Your task to perform on an android device: Go to notification settings Image 0: 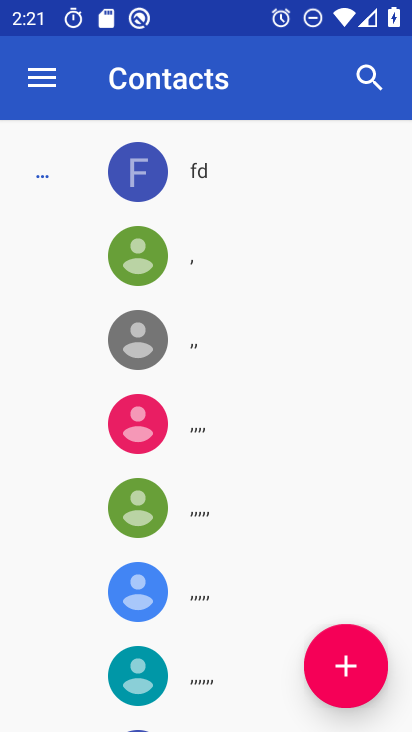
Step 0: press home button
Your task to perform on an android device: Go to notification settings Image 1: 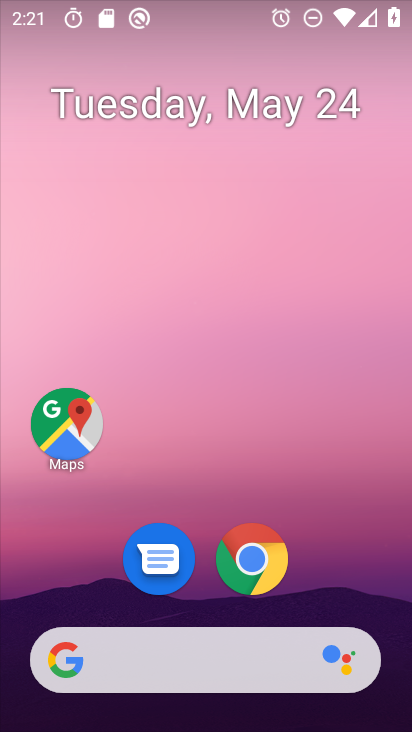
Step 1: drag from (391, 720) to (377, 259)
Your task to perform on an android device: Go to notification settings Image 2: 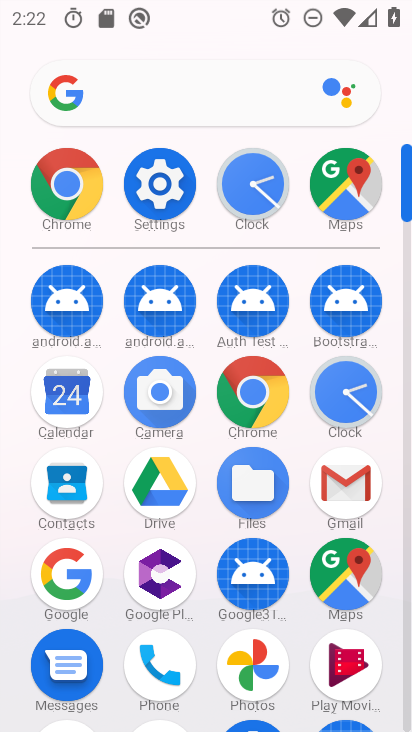
Step 2: click (175, 184)
Your task to perform on an android device: Go to notification settings Image 3: 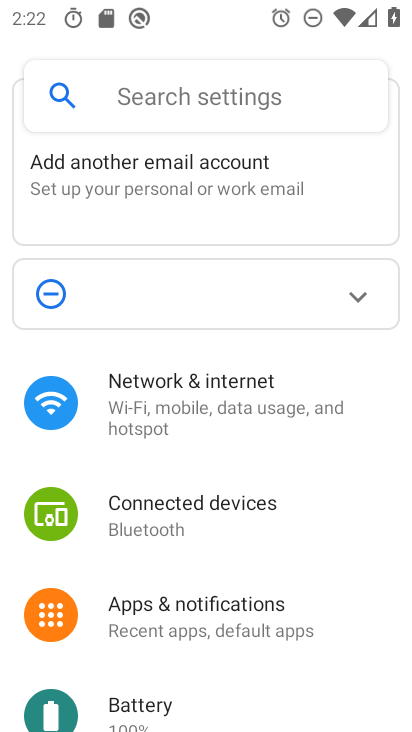
Step 3: click (193, 404)
Your task to perform on an android device: Go to notification settings Image 4: 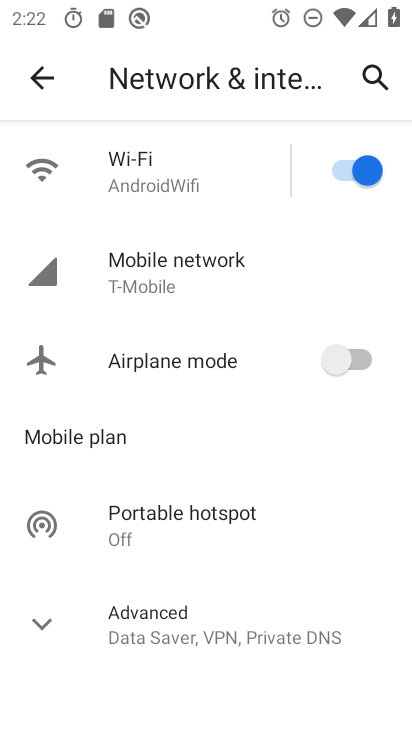
Step 4: drag from (254, 666) to (244, 301)
Your task to perform on an android device: Go to notification settings Image 5: 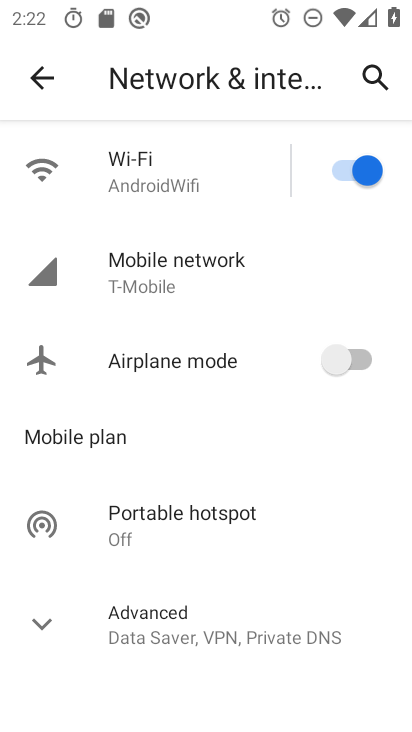
Step 5: click (39, 75)
Your task to perform on an android device: Go to notification settings Image 6: 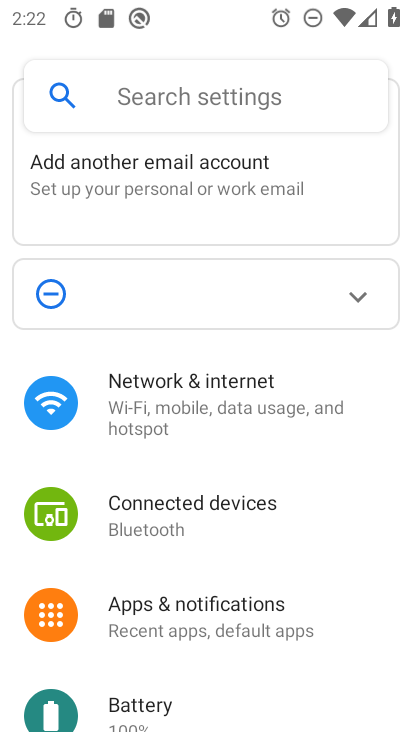
Step 6: click (170, 608)
Your task to perform on an android device: Go to notification settings Image 7: 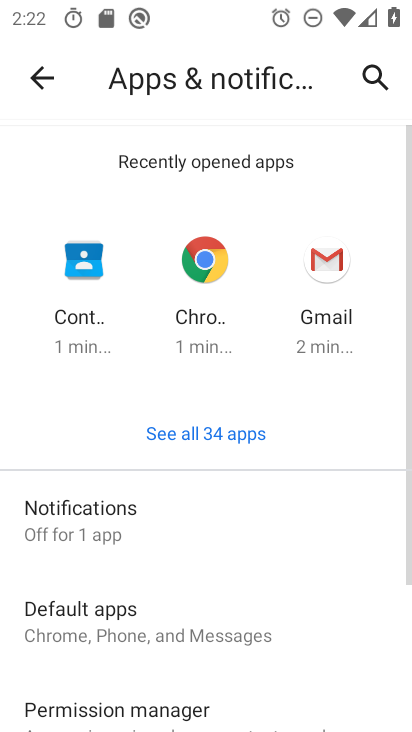
Step 7: click (63, 518)
Your task to perform on an android device: Go to notification settings Image 8: 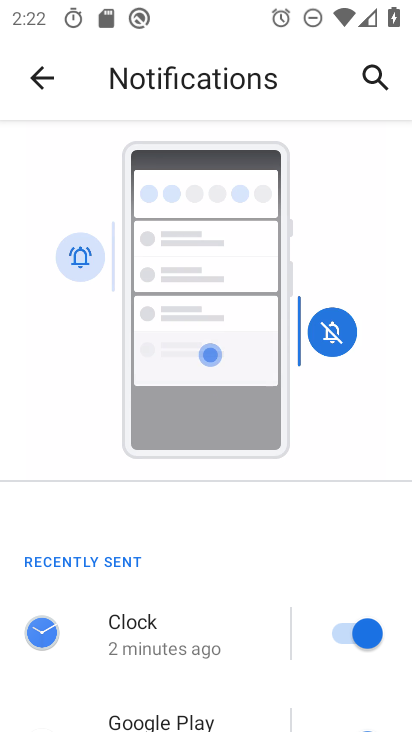
Step 8: drag from (254, 699) to (267, 251)
Your task to perform on an android device: Go to notification settings Image 9: 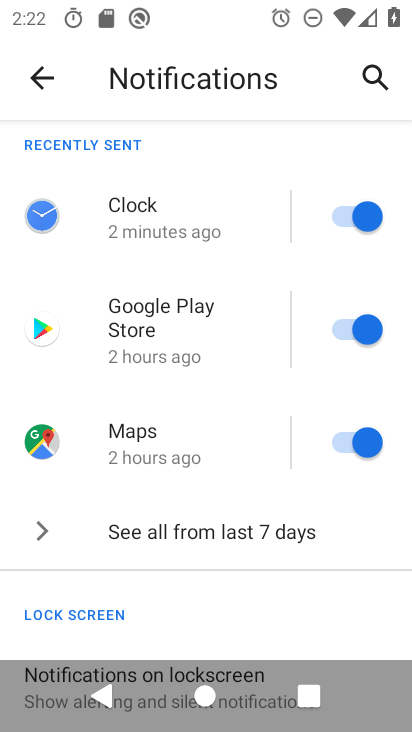
Step 9: drag from (268, 629) to (245, 331)
Your task to perform on an android device: Go to notification settings Image 10: 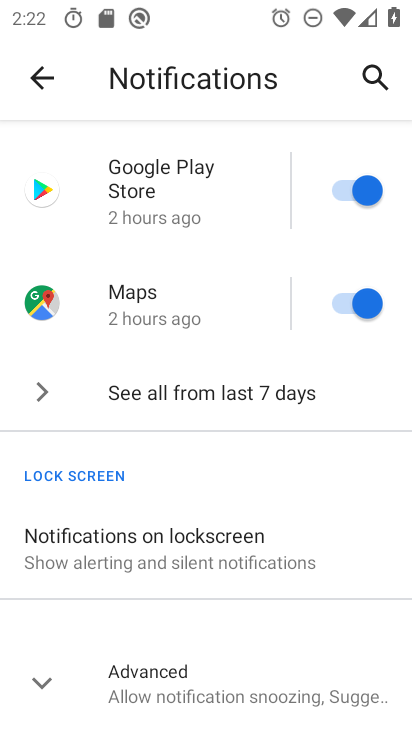
Step 10: click (42, 684)
Your task to perform on an android device: Go to notification settings Image 11: 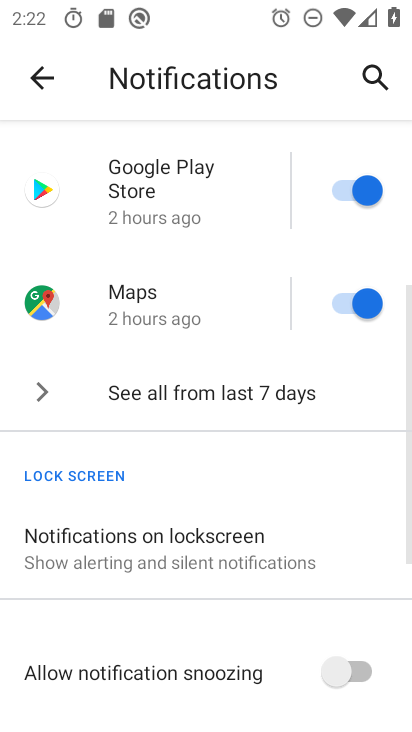
Step 11: task complete